Your task to perform on an android device: Open internet settings Image 0: 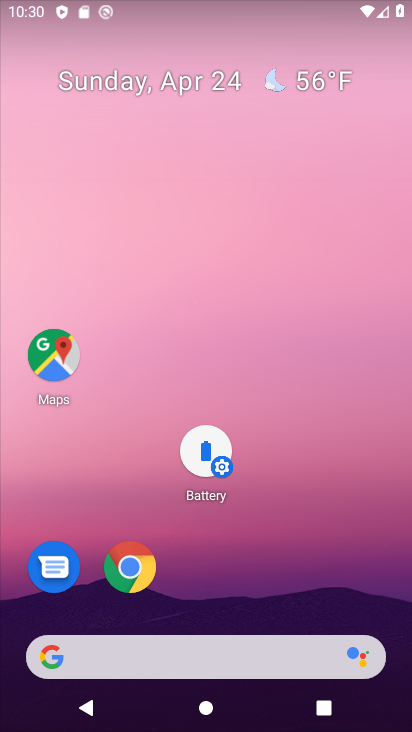
Step 0: drag from (151, 547) to (390, 218)
Your task to perform on an android device: Open internet settings Image 1: 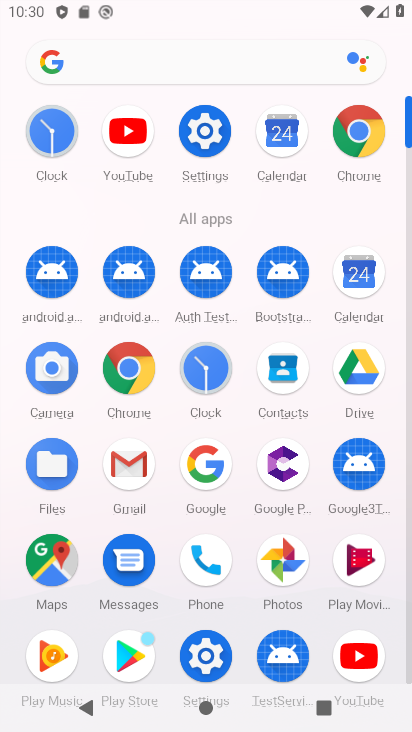
Step 1: click (202, 128)
Your task to perform on an android device: Open internet settings Image 2: 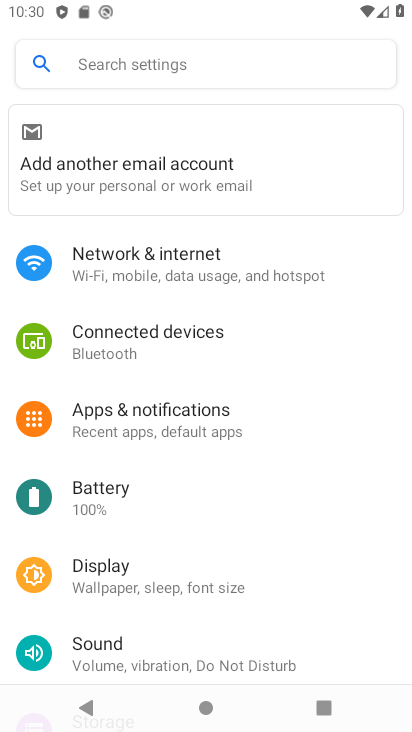
Step 2: click (231, 257)
Your task to perform on an android device: Open internet settings Image 3: 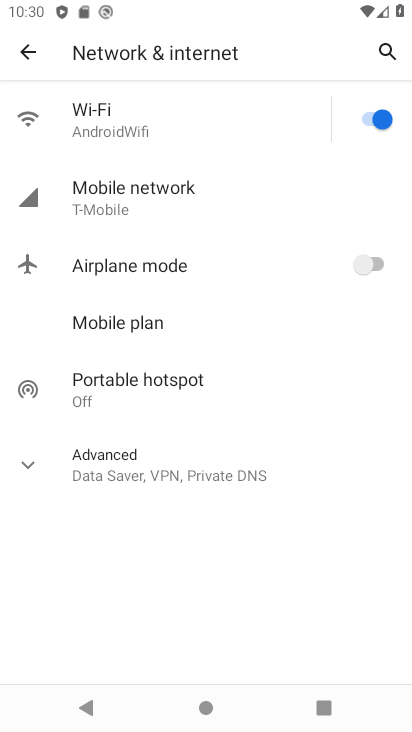
Step 3: click (256, 184)
Your task to perform on an android device: Open internet settings Image 4: 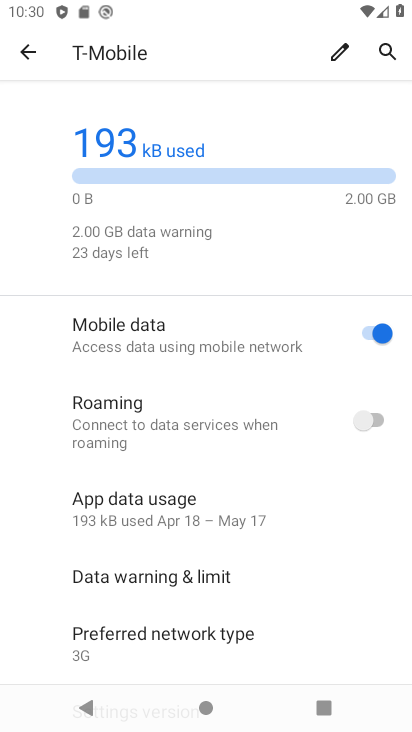
Step 4: task complete